Your task to perform on an android device: visit the assistant section in the google photos Image 0: 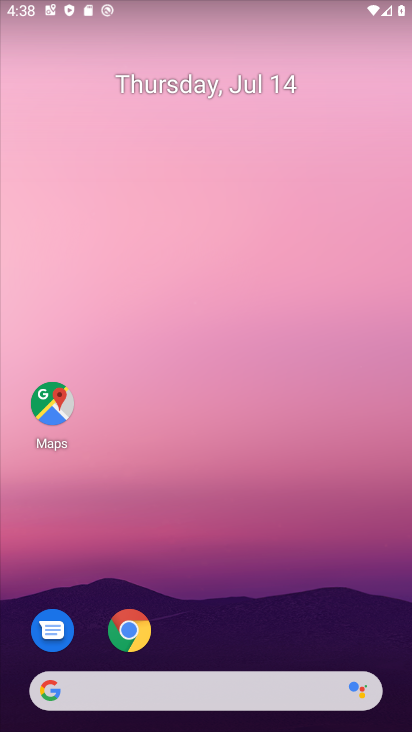
Step 0: drag from (199, 632) to (200, 102)
Your task to perform on an android device: visit the assistant section in the google photos Image 1: 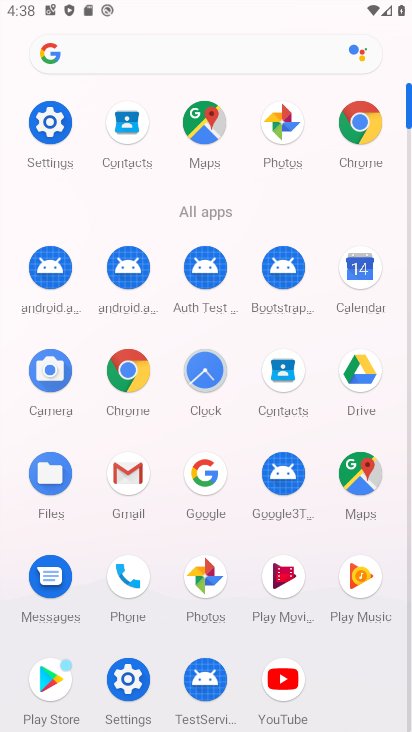
Step 1: click (284, 140)
Your task to perform on an android device: visit the assistant section in the google photos Image 2: 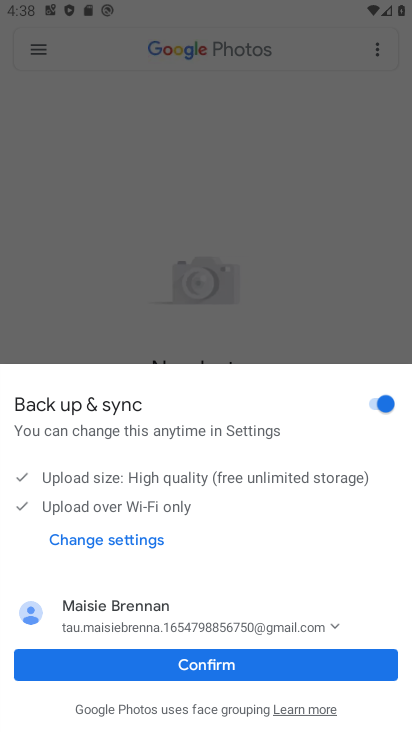
Step 2: click (187, 664)
Your task to perform on an android device: visit the assistant section in the google photos Image 3: 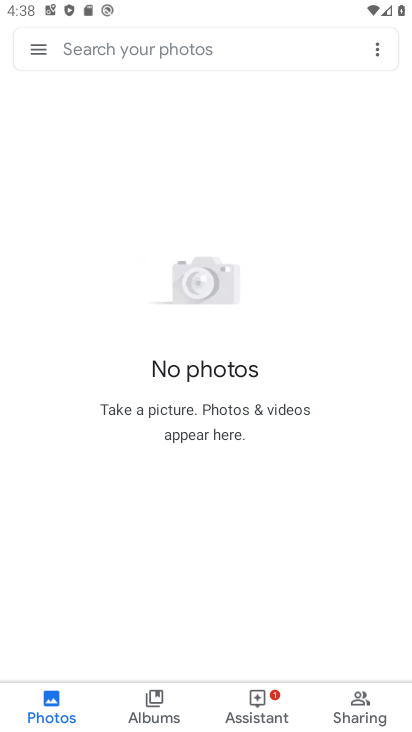
Step 3: click (254, 718)
Your task to perform on an android device: visit the assistant section in the google photos Image 4: 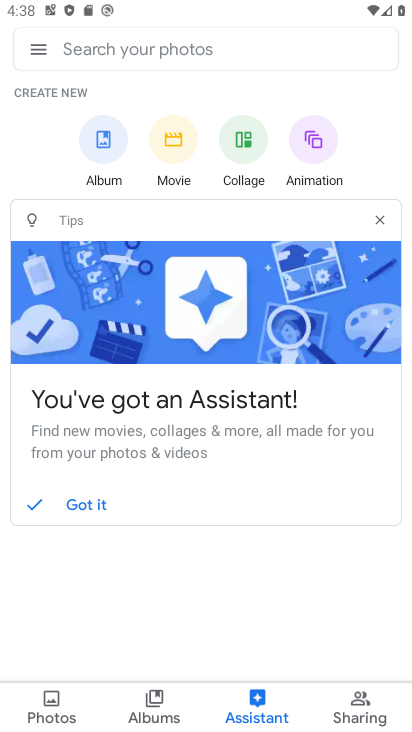
Step 4: task complete